Your task to perform on an android device: Open Wikipedia Image 0: 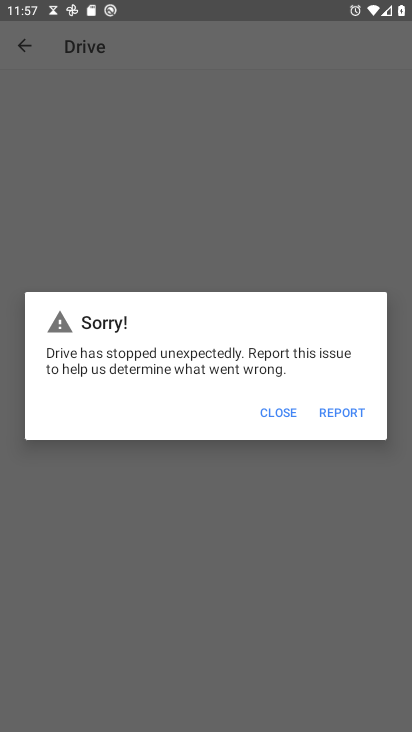
Step 0: press home button
Your task to perform on an android device: Open Wikipedia Image 1: 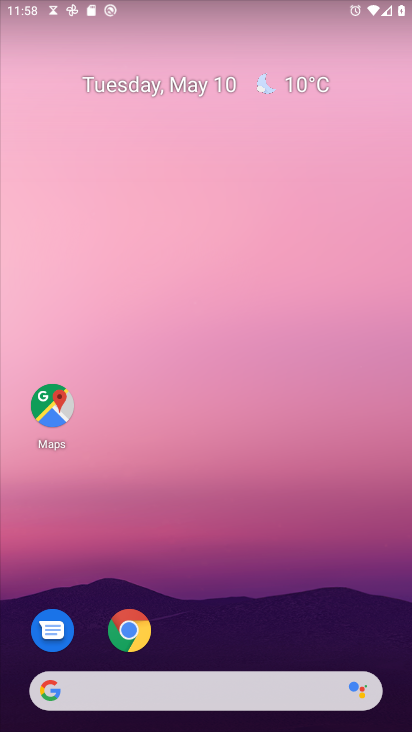
Step 1: click (127, 629)
Your task to perform on an android device: Open Wikipedia Image 2: 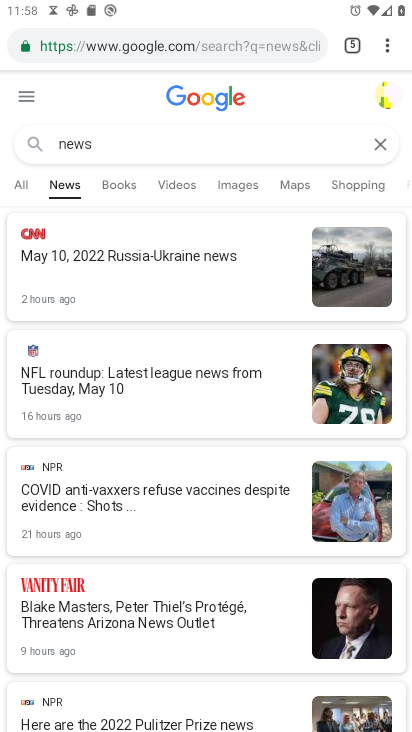
Step 2: click (354, 37)
Your task to perform on an android device: Open Wikipedia Image 3: 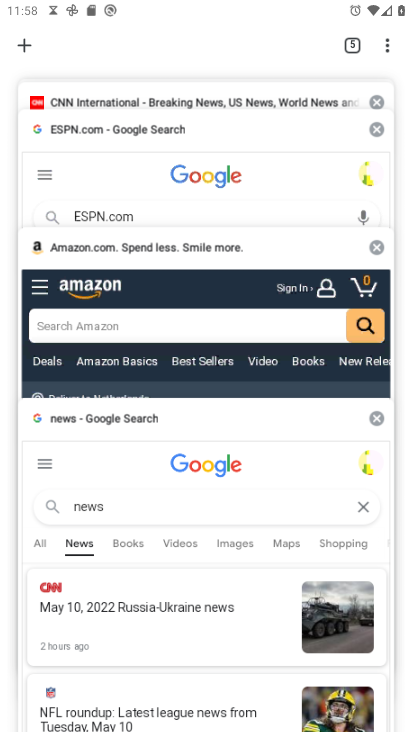
Step 3: drag from (194, 99) to (191, 415)
Your task to perform on an android device: Open Wikipedia Image 4: 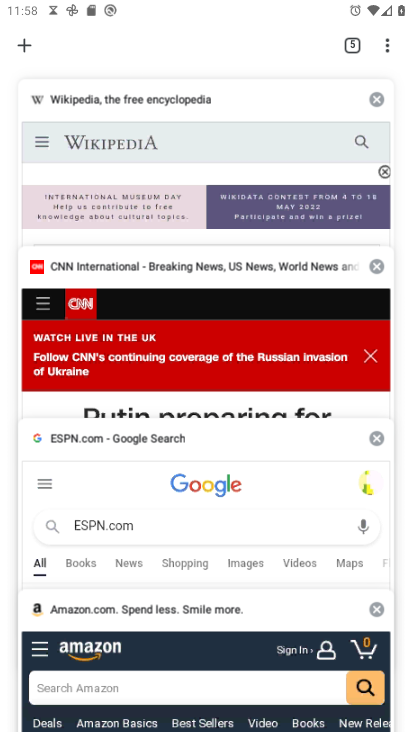
Step 4: click (166, 159)
Your task to perform on an android device: Open Wikipedia Image 5: 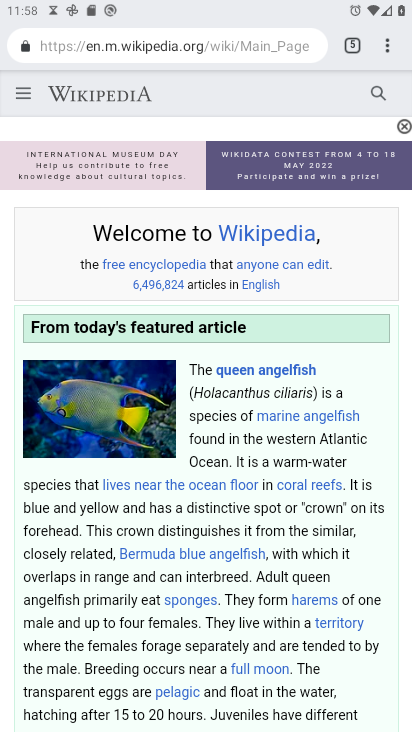
Step 5: task complete